Your task to perform on an android device: Open maps Image 0: 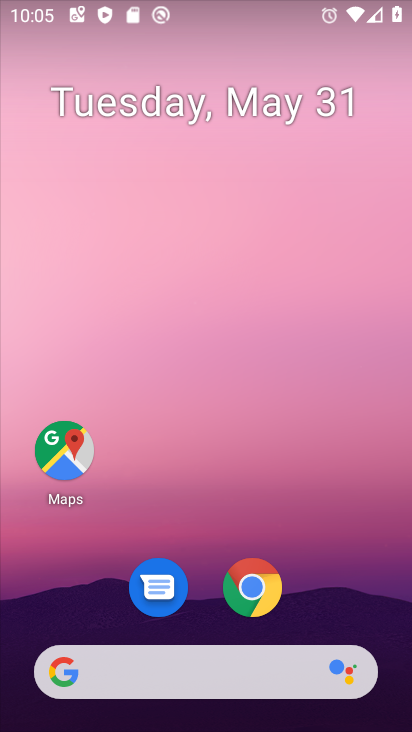
Step 0: drag from (386, 616) to (389, 308)
Your task to perform on an android device: Open maps Image 1: 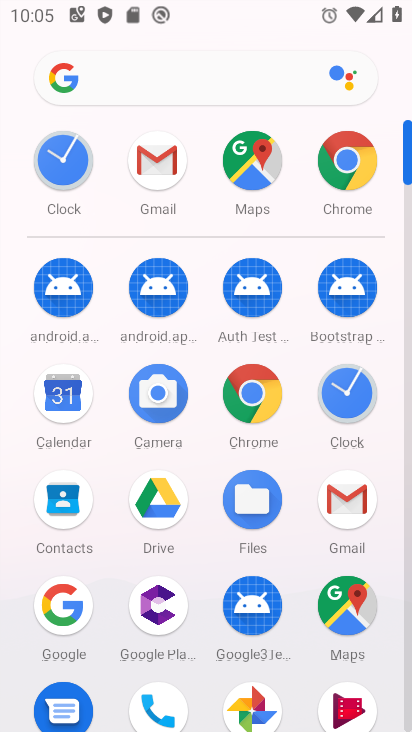
Step 1: drag from (384, 563) to (387, 335)
Your task to perform on an android device: Open maps Image 2: 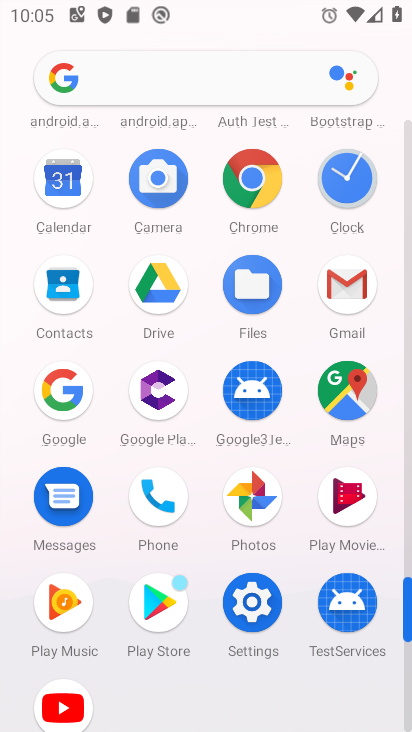
Step 2: click (342, 416)
Your task to perform on an android device: Open maps Image 3: 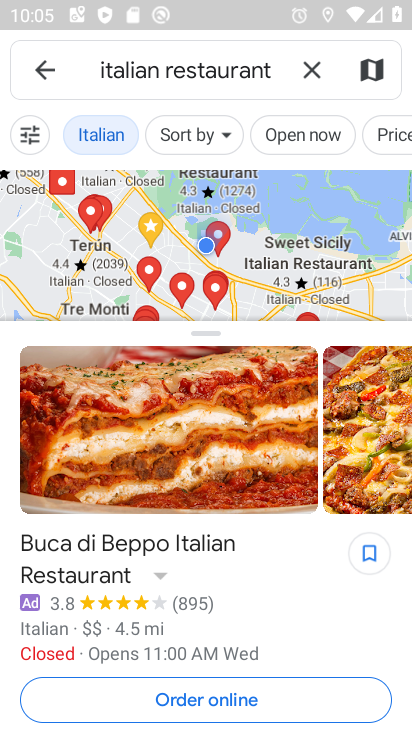
Step 3: task complete